Your task to perform on an android device: Search for pizza restaurants on Maps Image 0: 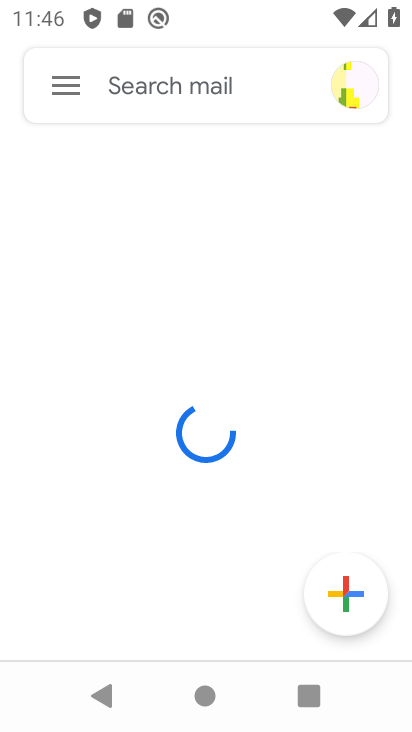
Step 0: press back button
Your task to perform on an android device: Search for pizza restaurants on Maps Image 1: 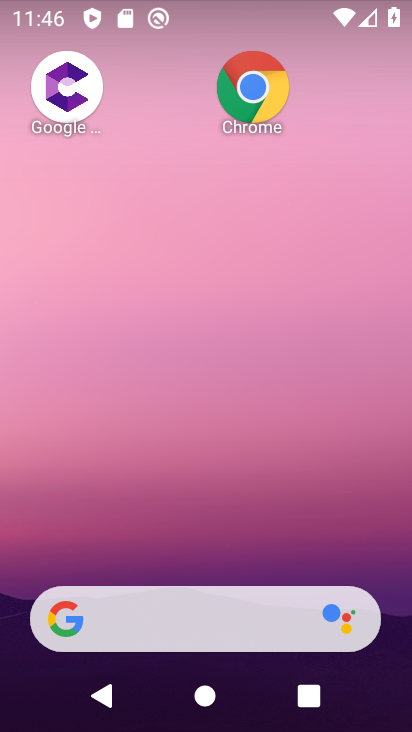
Step 1: drag from (223, 506) to (215, 70)
Your task to perform on an android device: Search for pizza restaurants on Maps Image 2: 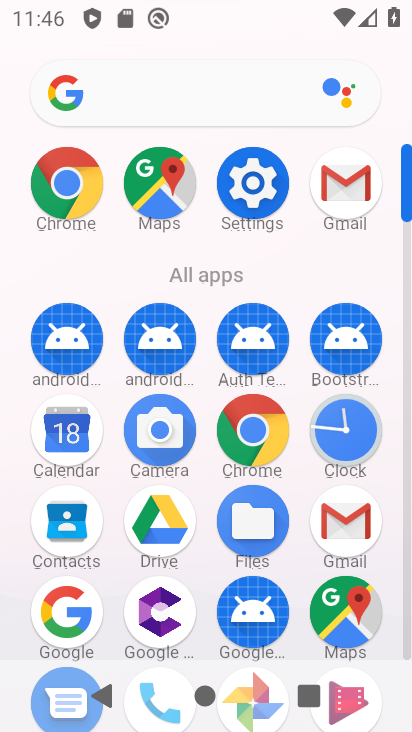
Step 2: click (350, 605)
Your task to perform on an android device: Search for pizza restaurants on Maps Image 3: 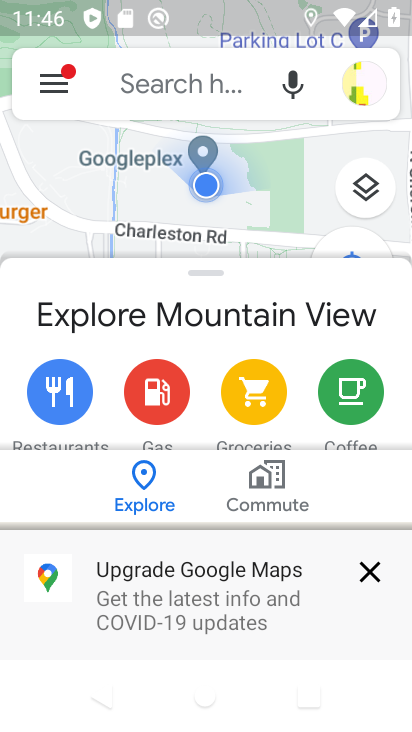
Step 3: click (176, 85)
Your task to perform on an android device: Search for pizza restaurants on Maps Image 4: 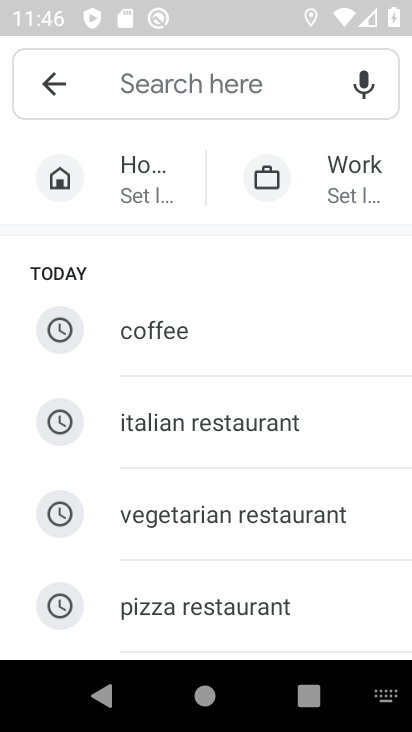
Step 4: click (189, 86)
Your task to perform on an android device: Search for pizza restaurants on Maps Image 5: 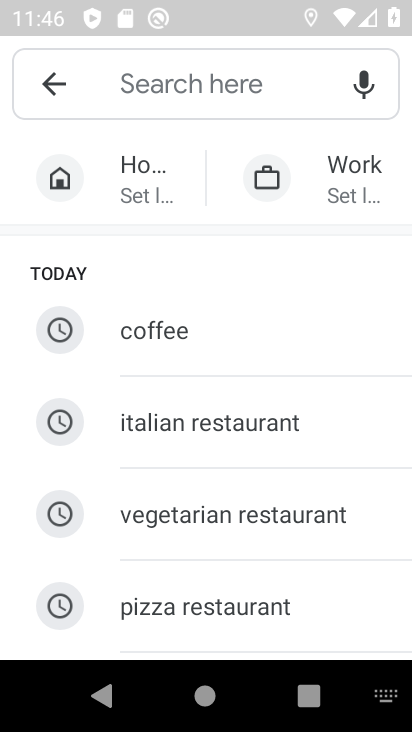
Step 5: type "Pizza restaurants"
Your task to perform on an android device: Search for pizza restaurants on Maps Image 6: 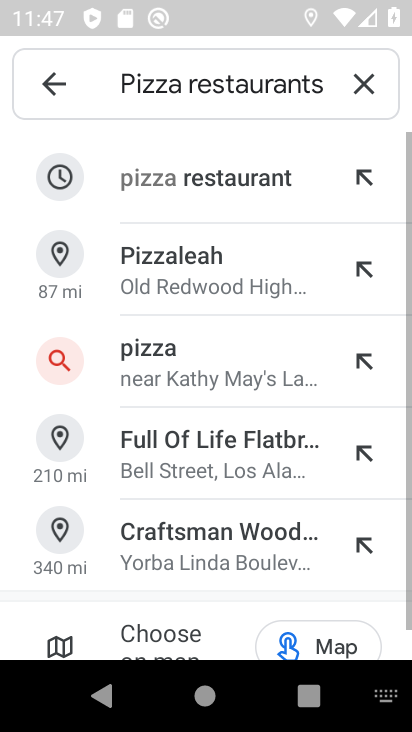
Step 6: click (151, 173)
Your task to perform on an android device: Search for pizza restaurants on Maps Image 7: 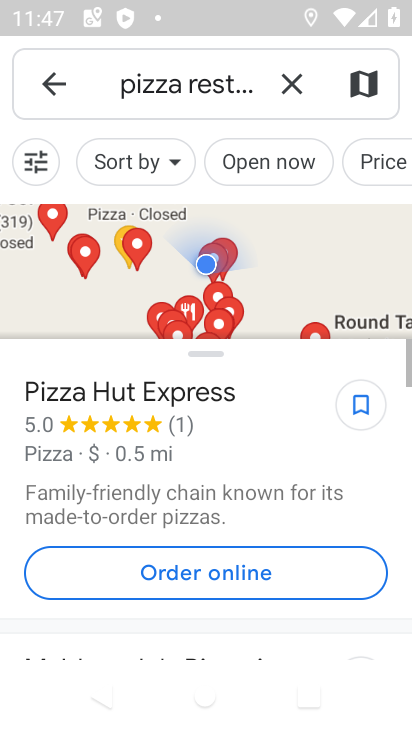
Step 7: task complete